Your task to perform on an android device: What's the news in Indonesia? Image 0: 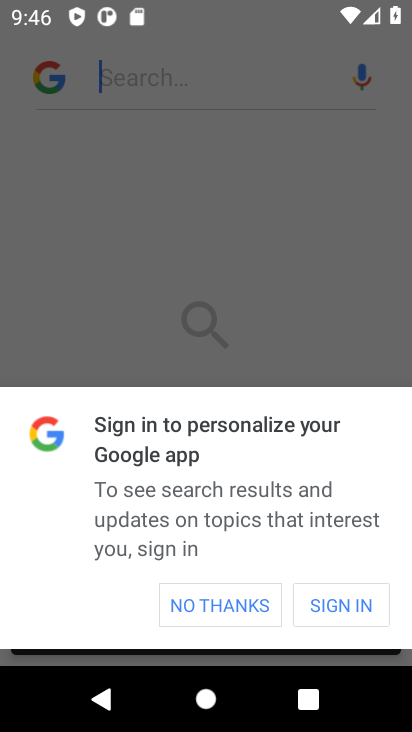
Step 0: press home button
Your task to perform on an android device: What's the news in Indonesia? Image 1: 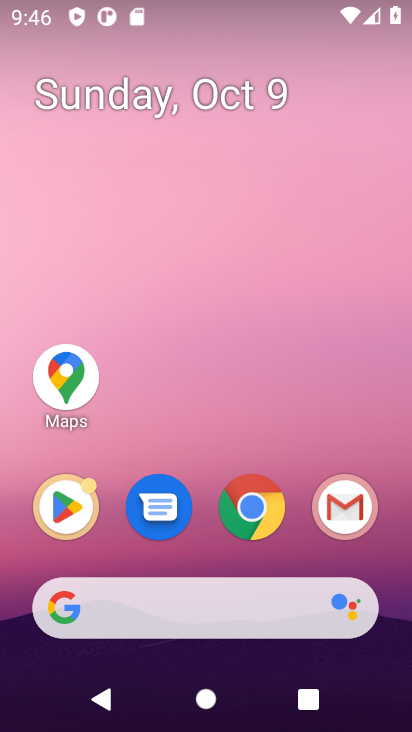
Step 1: click (252, 499)
Your task to perform on an android device: What's the news in Indonesia? Image 2: 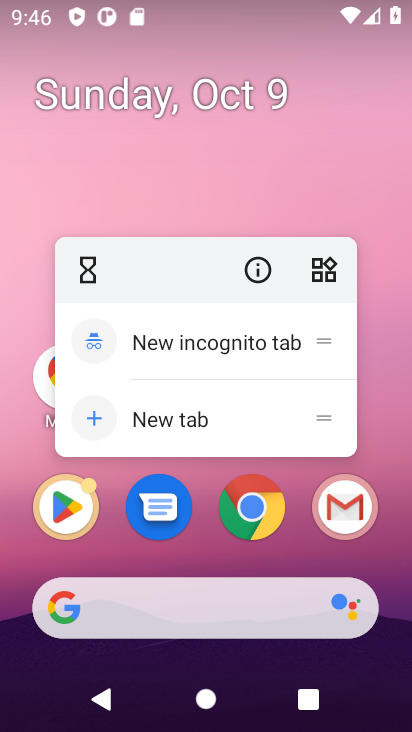
Step 2: click (259, 503)
Your task to perform on an android device: What's the news in Indonesia? Image 3: 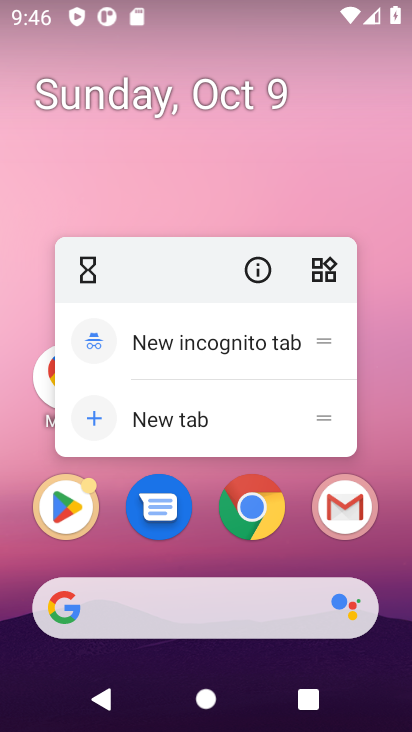
Step 3: click (202, 558)
Your task to perform on an android device: What's the news in Indonesia? Image 4: 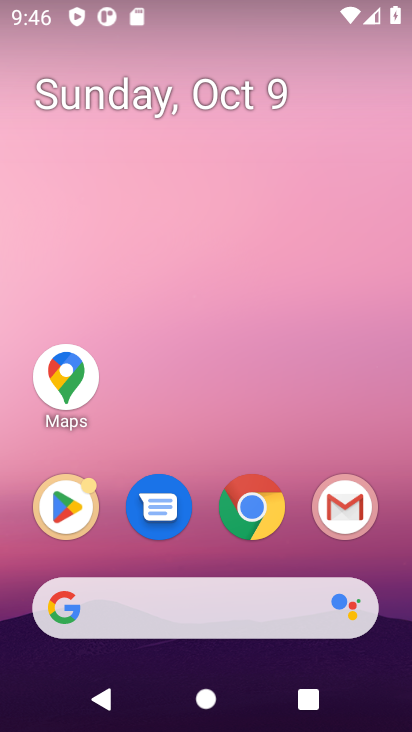
Step 4: drag from (190, 561) to (215, 131)
Your task to perform on an android device: What's the news in Indonesia? Image 5: 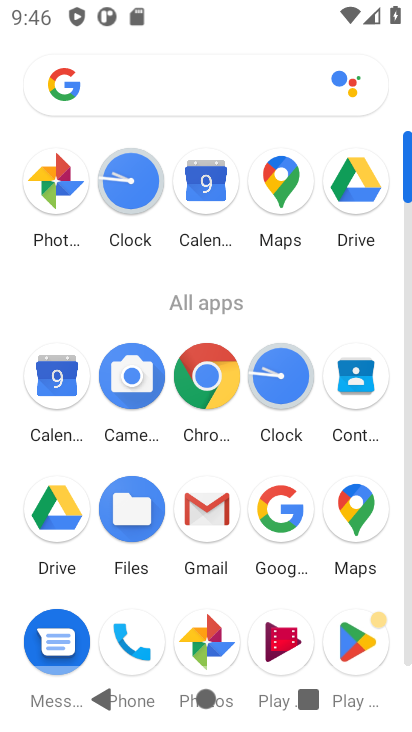
Step 5: click (205, 374)
Your task to perform on an android device: What's the news in Indonesia? Image 6: 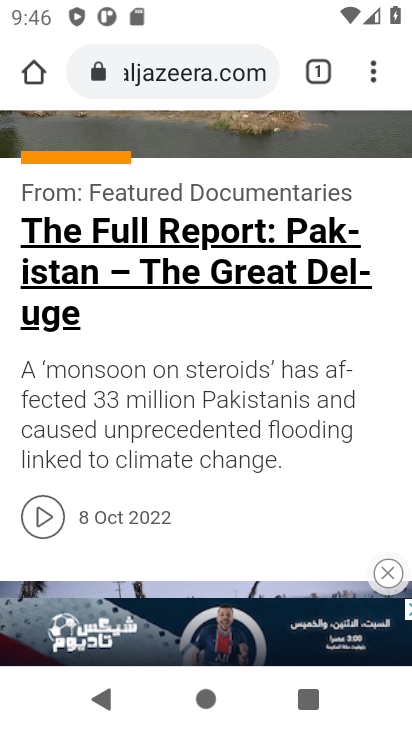
Step 6: click (192, 77)
Your task to perform on an android device: What's the news in Indonesia? Image 7: 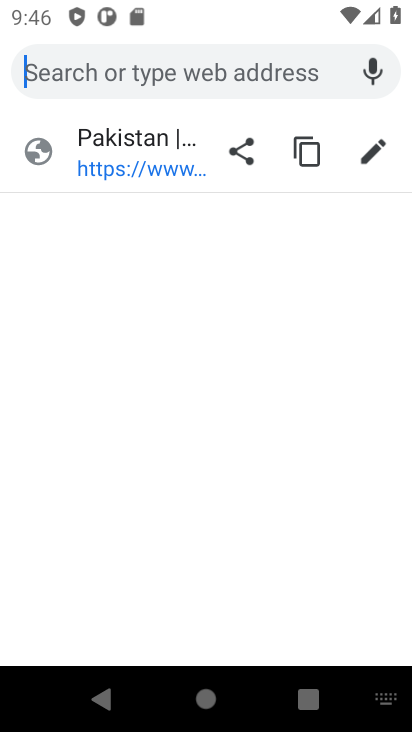
Step 7: type "indionesia news"
Your task to perform on an android device: What's the news in Indonesia? Image 8: 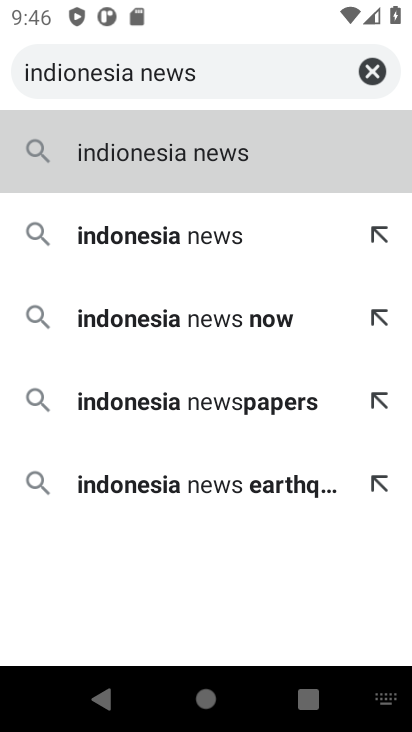
Step 8: press enter
Your task to perform on an android device: What's the news in Indonesia? Image 9: 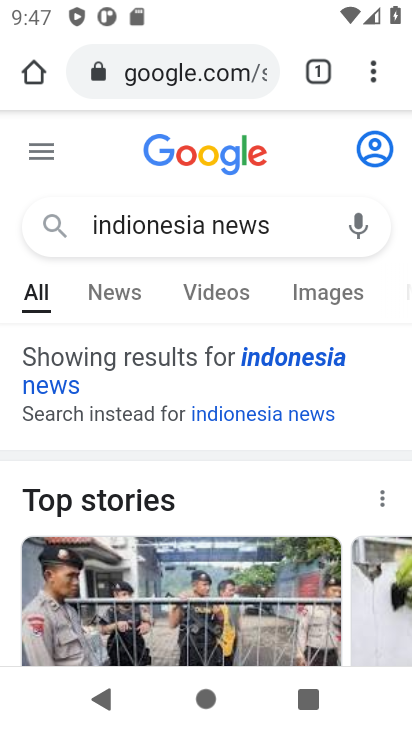
Step 9: click (296, 350)
Your task to perform on an android device: What's the news in Indonesia? Image 10: 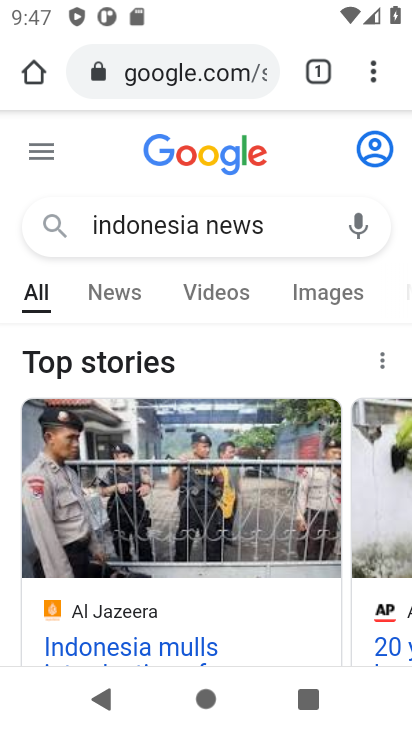
Step 10: task complete